Your task to perform on an android device: change the clock display to show seconds Image 0: 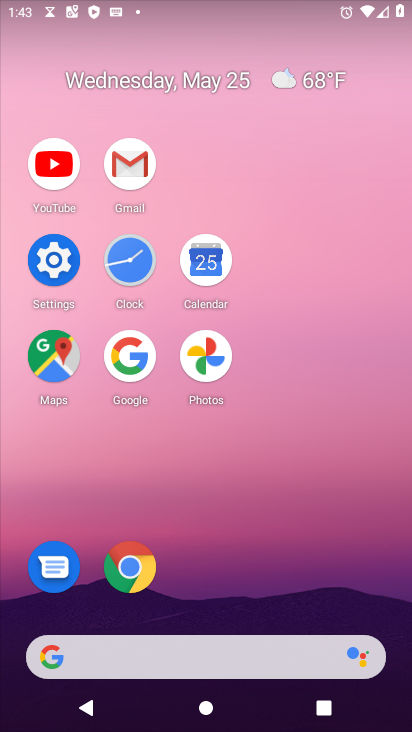
Step 0: click (141, 258)
Your task to perform on an android device: change the clock display to show seconds Image 1: 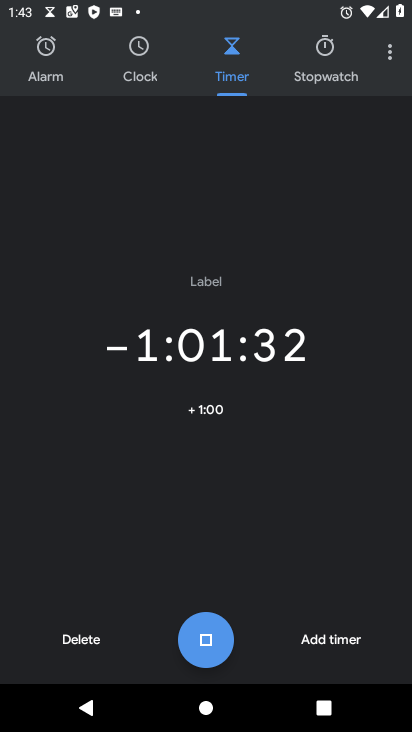
Step 1: click (398, 50)
Your task to perform on an android device: change the clock display to show seconds Image 2: 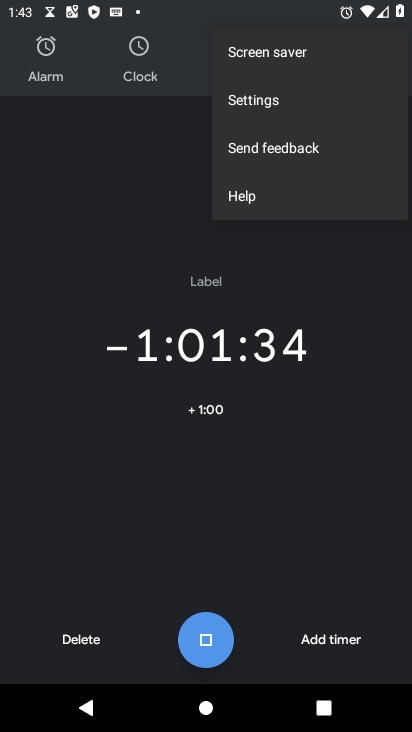
Step 2: click (333, 103)
Your task to perform on an android device: change the clock display to show seconds Image 3: 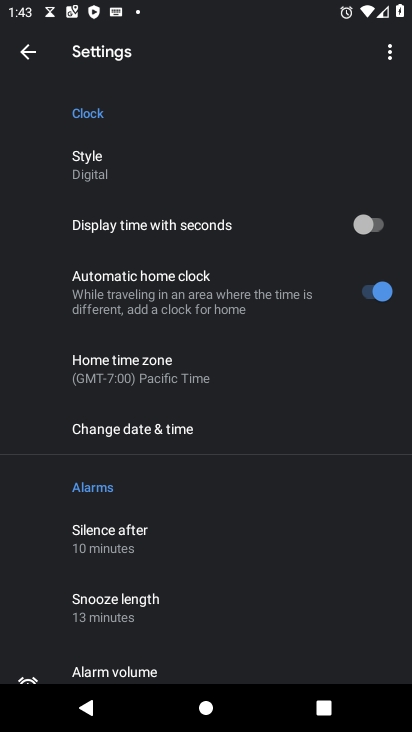
Step 3: click (359, 226)
Your task to perform on an android device: change the clock display to show seconds Image 4: 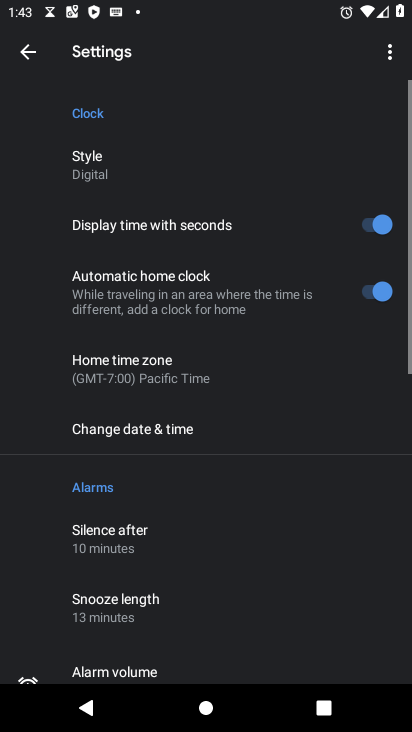
Step 4: task complete